Your task to perform on an android device: turn on location history Image 0: 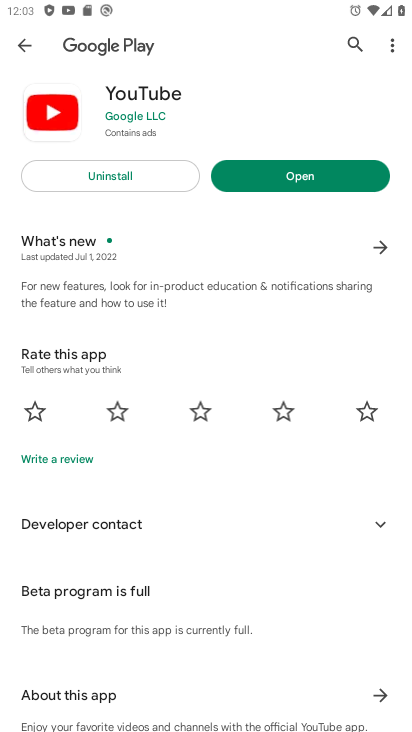
Step 0: press home button
Your task to perform on an android device: turn on location history Image 1: 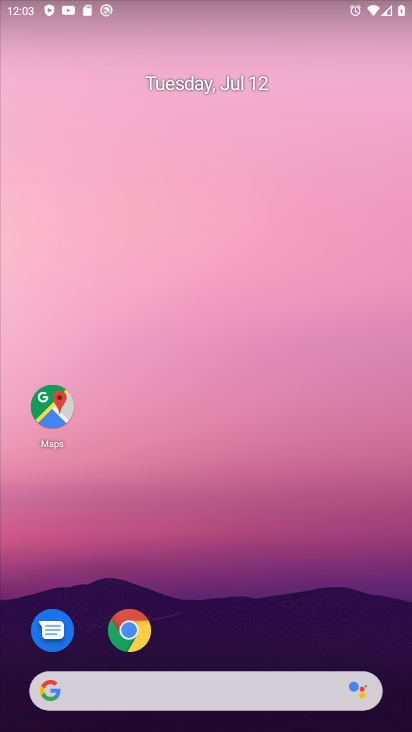
Step 1: drag from (212, 688) to (286, 101)
Your task to perform on an android device: turn on location history Image 2: 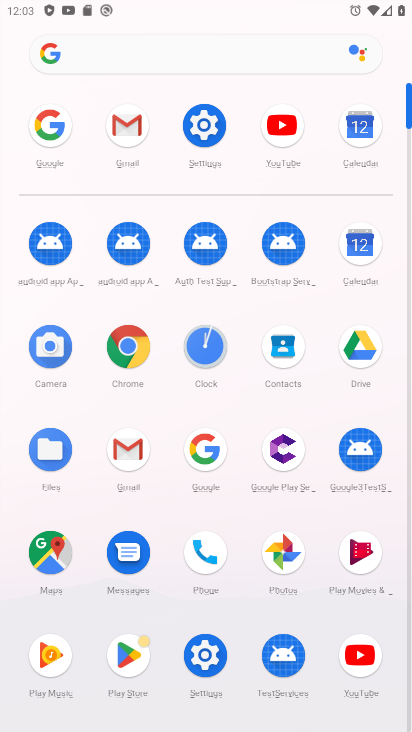
Step 2: click (205, 124)
Your task to perform on an android device: turn on location history Image 3: 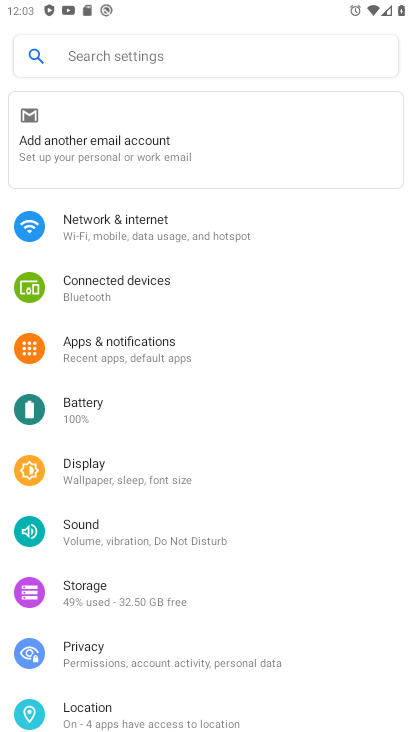
Step 3: drag from (98, 435) to (154, 355)
Your task to perform on an android device: turn on location history Image 4: 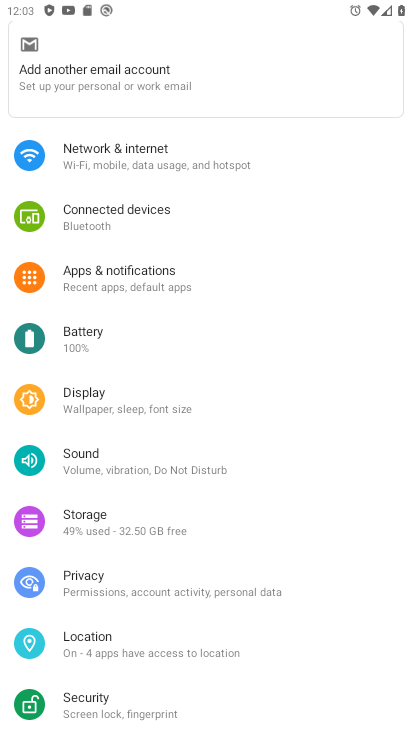
Step 4: click (92, 644)
Your task to perform on an android device: turn on location history Image 5: 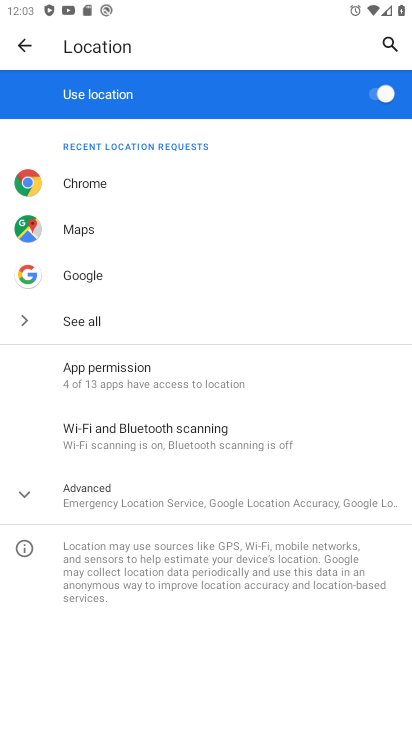
Step 5: click (146, 493)
Your task to perform on an android device: turn on location history Image 6: 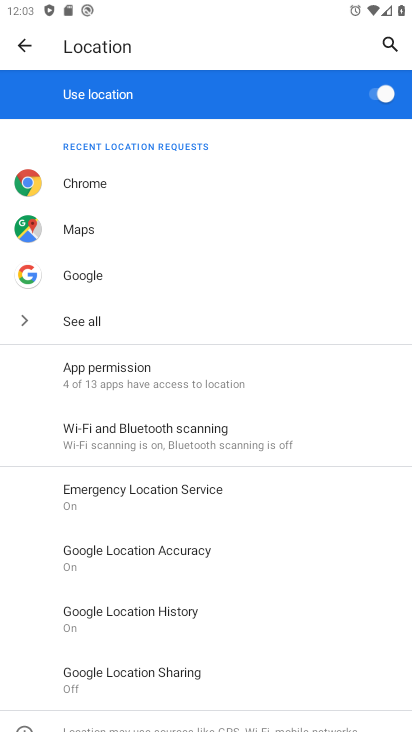
Step 6: click (144, 623)
Your task to perform on an android device: turn on location history Image 7: 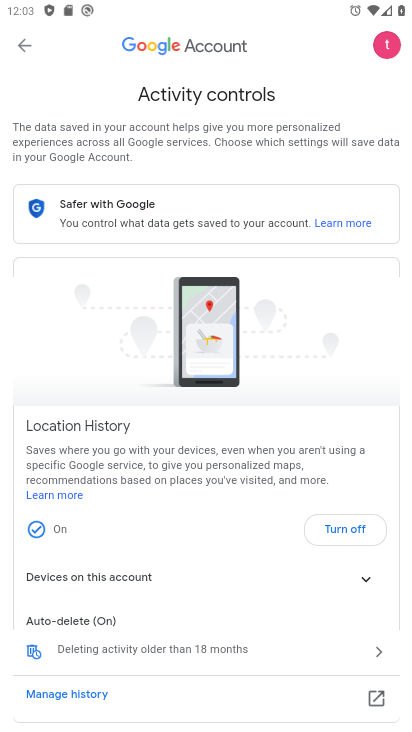
Step 7: task complete